Your task to perform on an android device: Set the phone to "Do not disturb". Image 0: 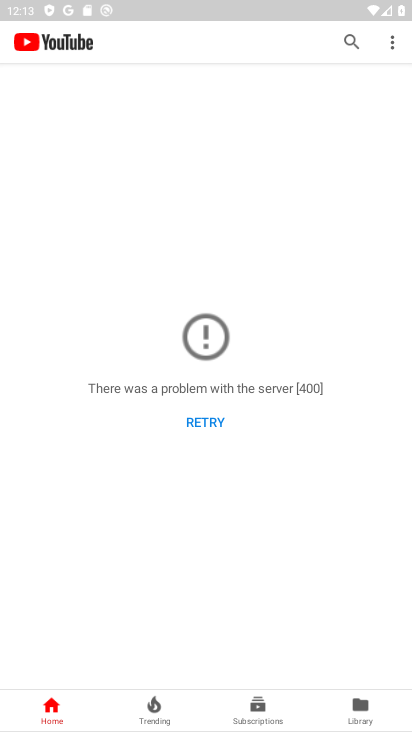
Step 0: press home button
Your task to perform on an android device: Set the phone to "Do not disturb". Image 1: 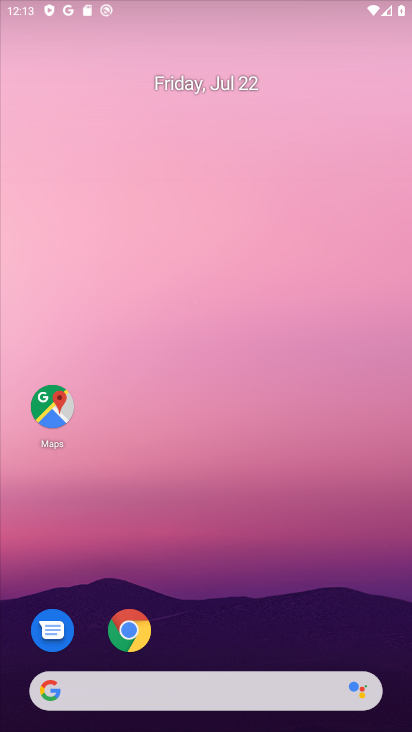
Step 1: drag from (200, 644) to (212, 100)
Your task to perform on an android device: Set the phone to "Do not disturb". Image 2: 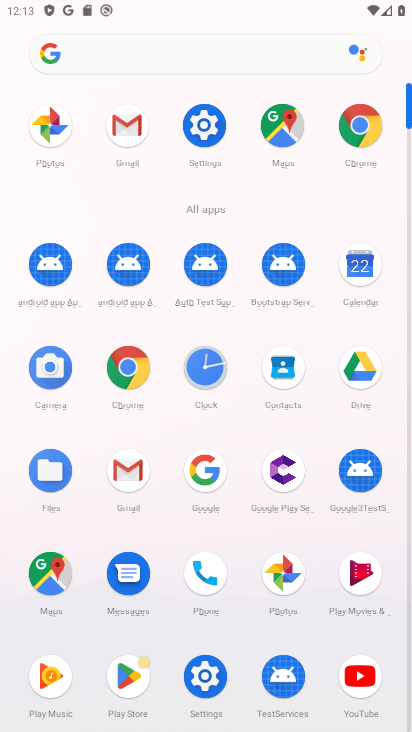
Step 2: click (209, 119)
Your task to perform on an android device: Set the phone to "Do not disturb". Image 3: 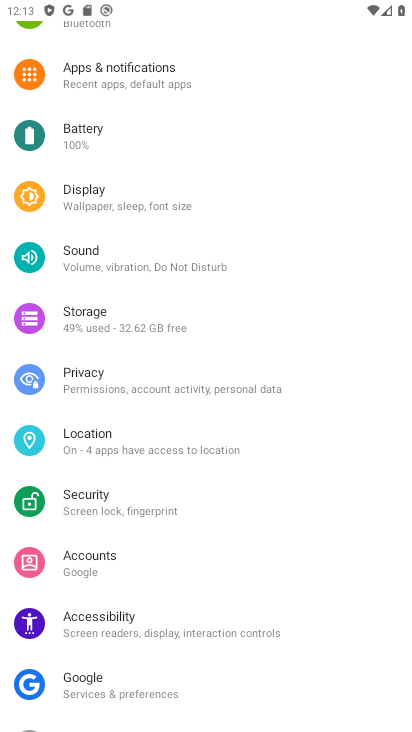
Step 3: click (151, 251)
Your task to perform on an android device: Set the phone to "Do not disturb". Image 4: 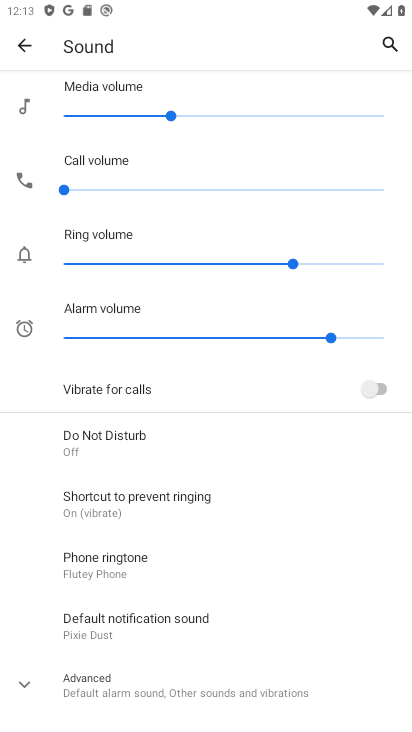
Step 4: click (123, 440)
Your task to perform on an android device: Set the phone to "Do not disturb". Image 5: 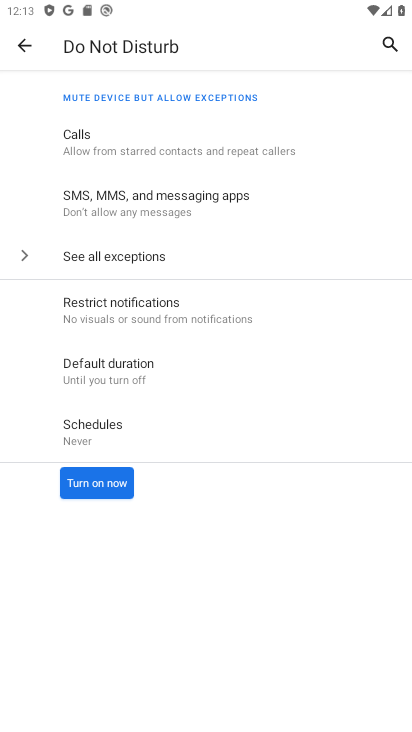
Step 5: click (107, 478)
Your task to perform on an android device: Set the phone to "Do not disturb". Image 6: 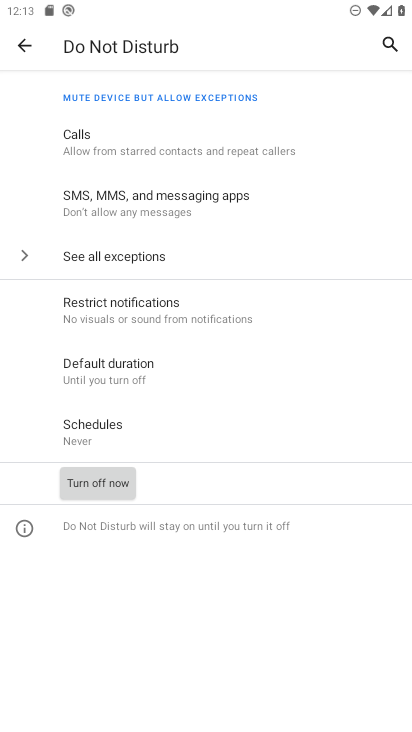
Step 6: task complete